Your task to perform on an android device: Open wifi settings Image 0: 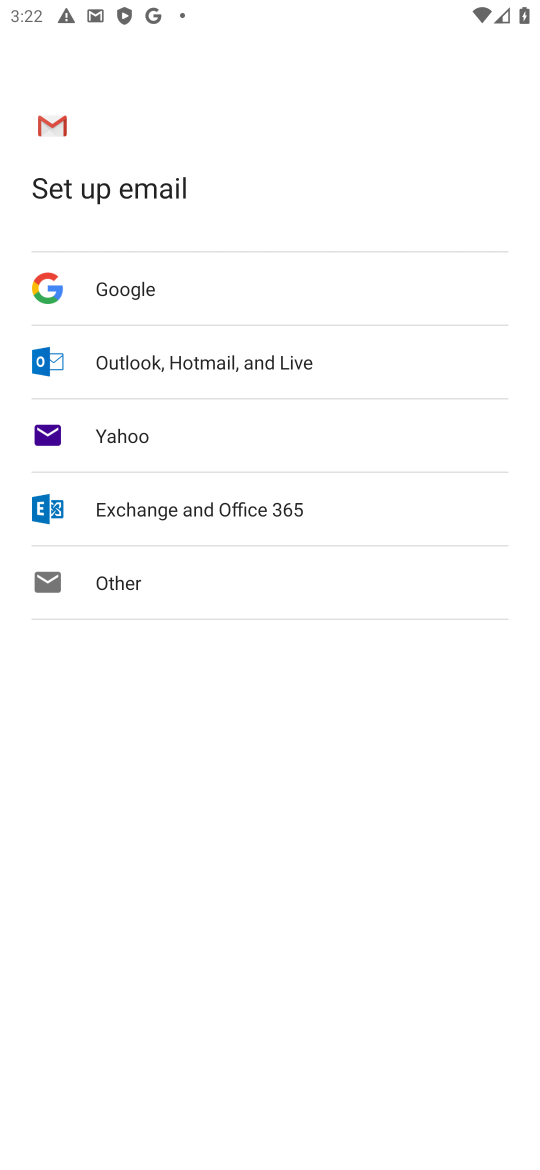
Step 0: press home button
Your task to perform on an android device: Open wifi settings Image 1: 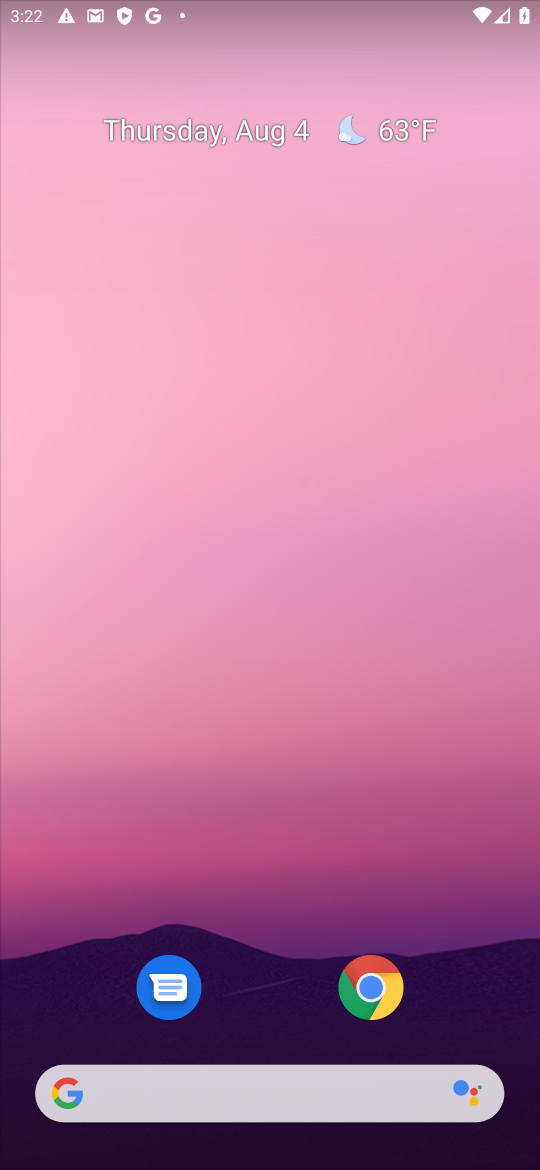
Step 1: drag from (276, 988) to (310, 250)
Your task to perform on an android device: Open wifi settings Image 2: 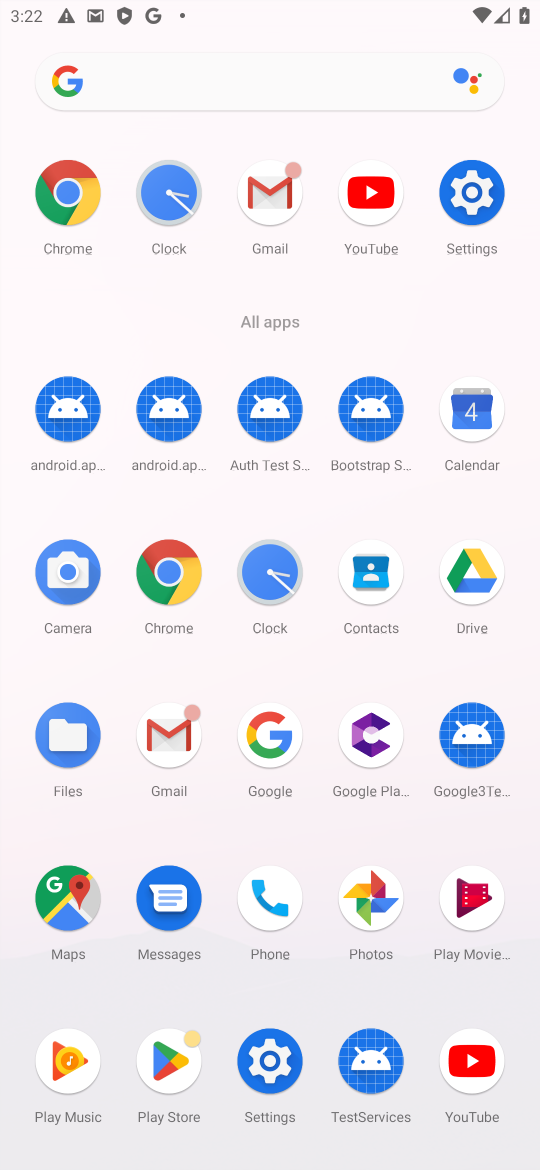
Step 2: click (473, 196)
Your task to perform on an android device: Open wifi settings Image 3: 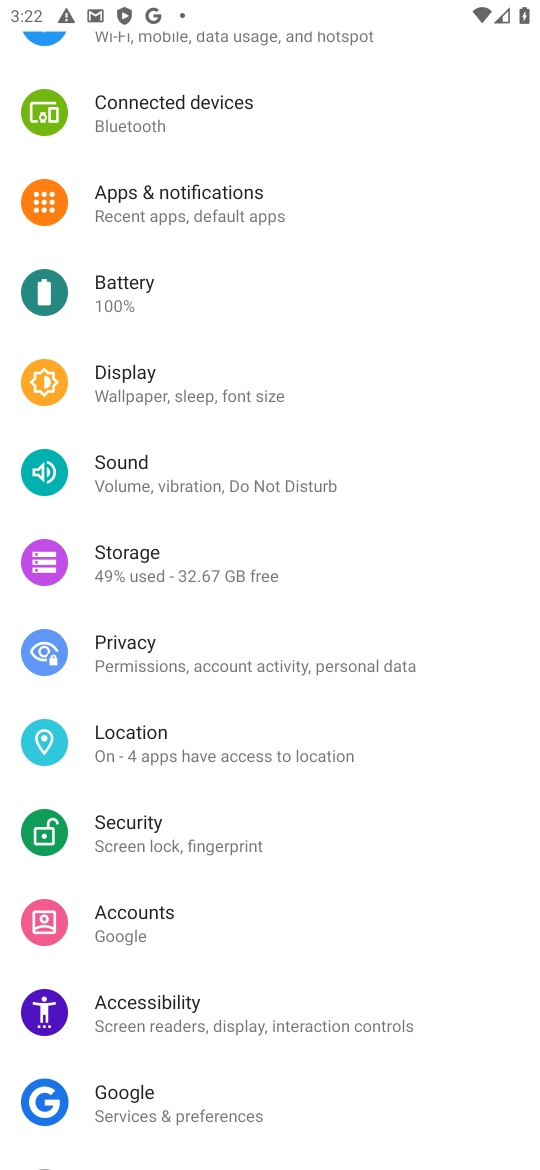
Step 3: drag from (236, 265) to (168, 998)
Your task to perform on an android device: Open wifi settings Image 4: 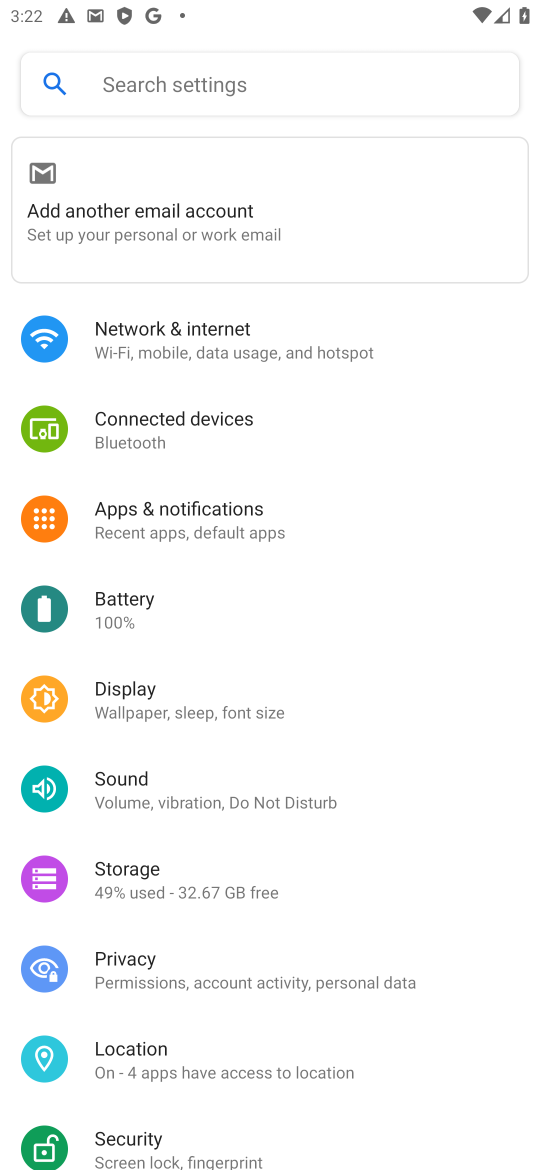
Step 4: click (221, 338)
Your task to perform on an android device: Open wifi settings Image 5: 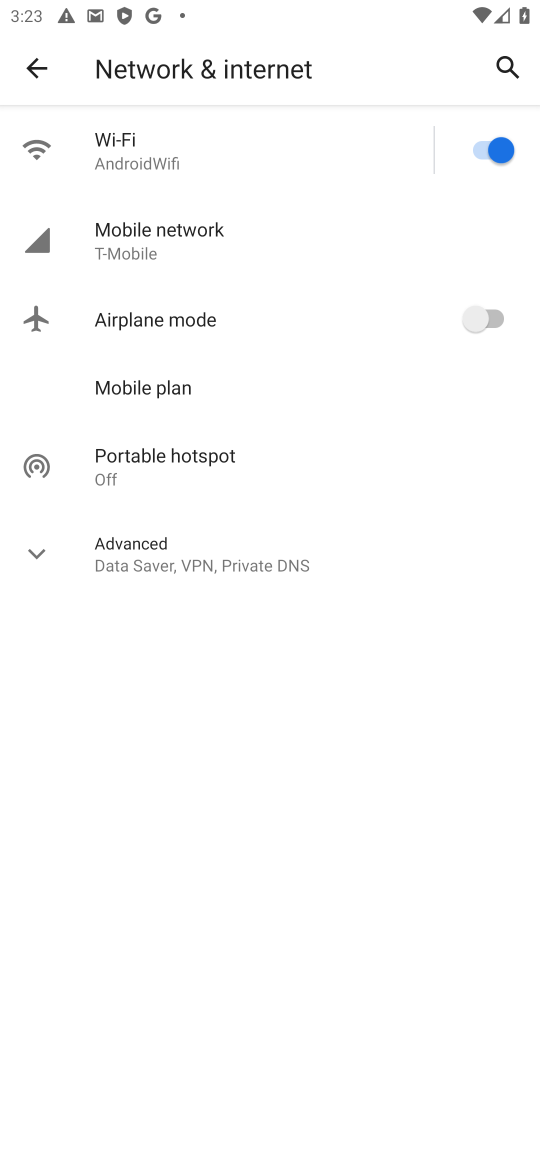
Step 5: click (156, 150)
Your task to perform on an android device: Open wifi settings Image 6: 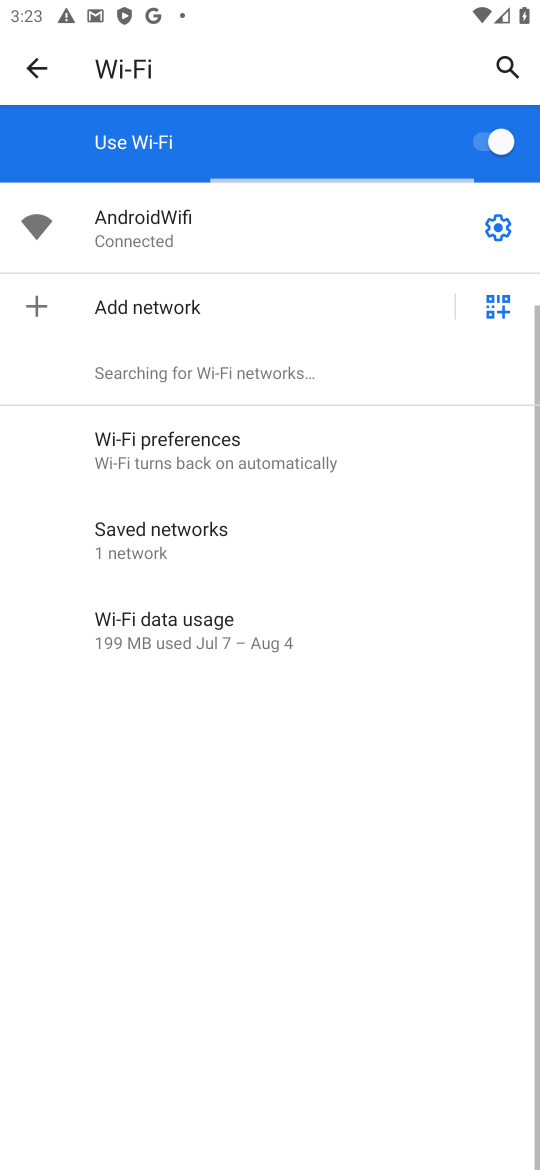
Step 6: task complete